Your task to perform on an android device: see creations saved in the google photos Image 0: 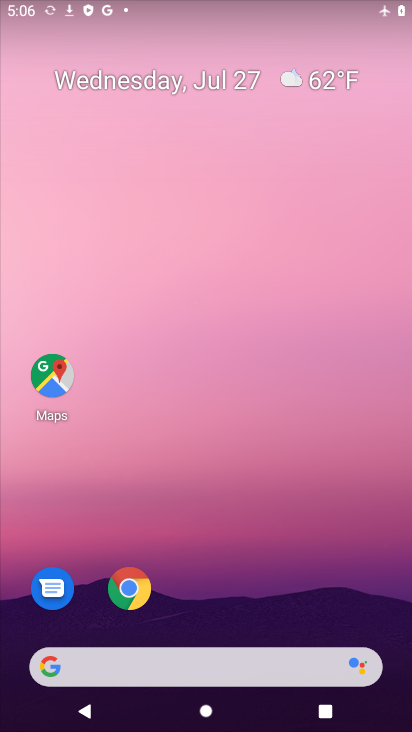
Step 0: drag from (189, 427) to (196, 139)
Your task to perform on an android device: see creations saved in the google photos Image 1: 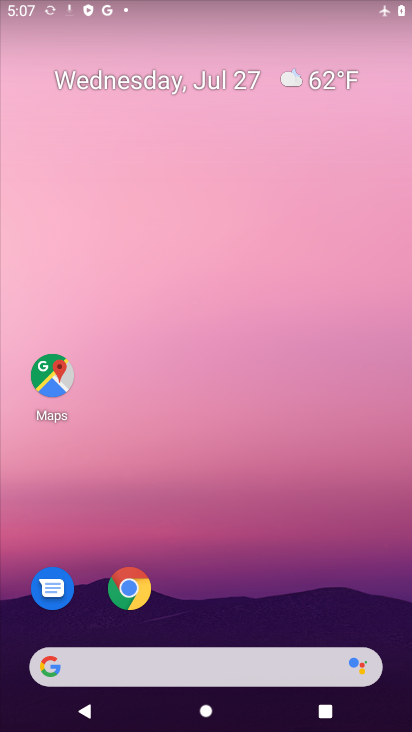
Step 1: drag from (196, 565) to (269, 5)
Your task to perform on an android device: see creations saved in the google photos Image 2: 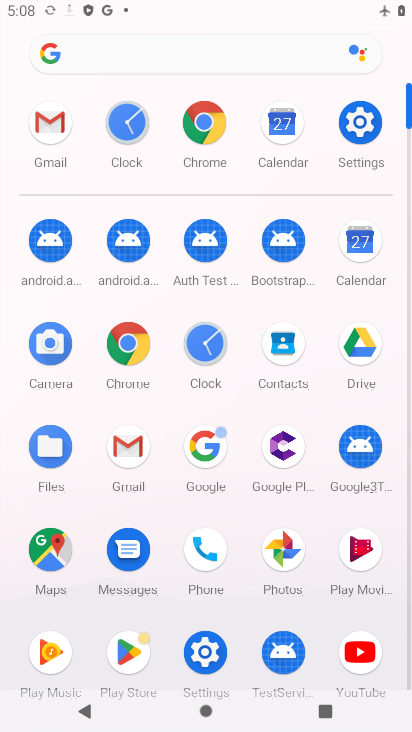
Step 2: click (289, 560)
Your task to perform on an android device: see creations saved in the google photos Image 3: 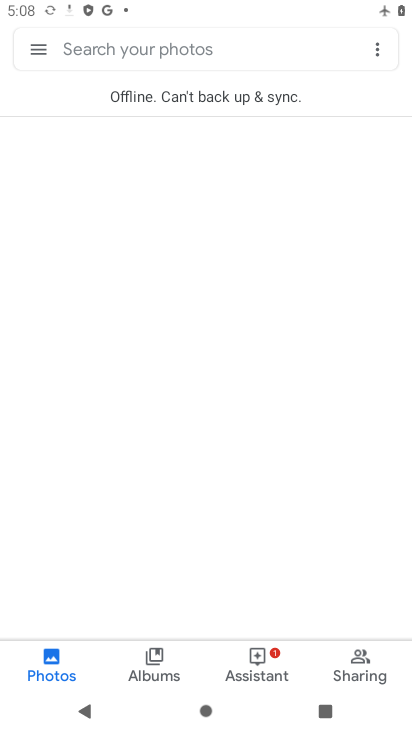
Step 3: task complete